Your task to perform on an android device: Open battery settings Image 0: 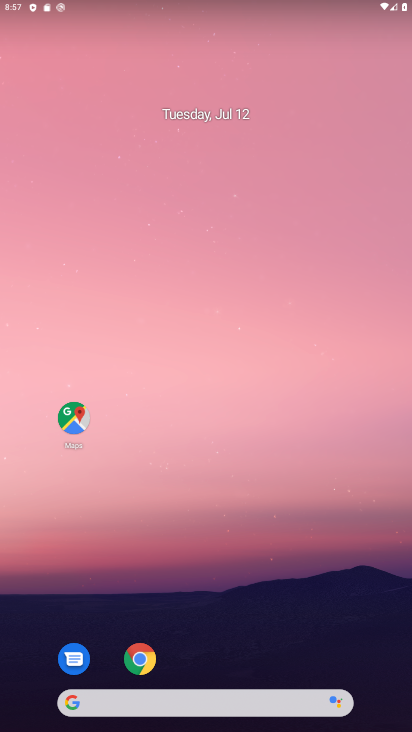
Step 0: drag from (196, 653) to (288, 153)
Your task to perform on an android device: Open battery settings Image 1: 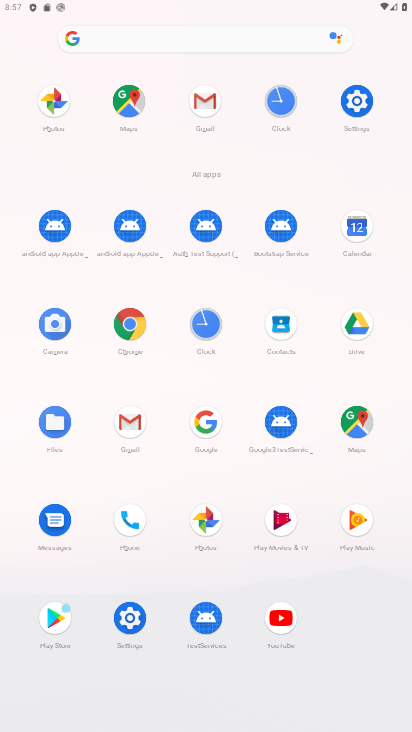
Step 1: click (138, 622)
Your task to perform on an android device: Open battery settings Image 2: 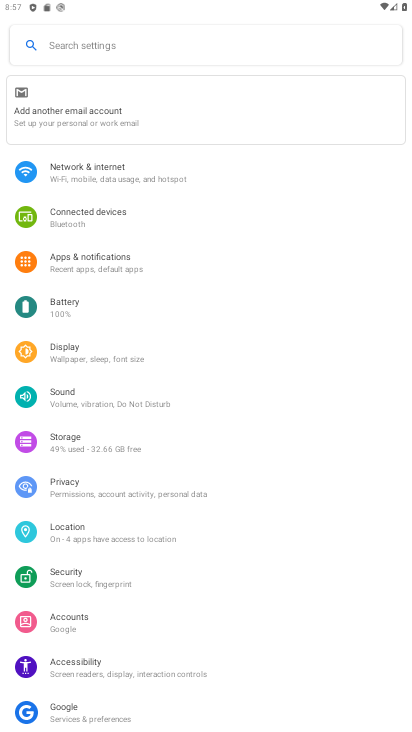
Step 2: click (94, 310)
Your task to perform on an android device: Open battery settings Image 3: 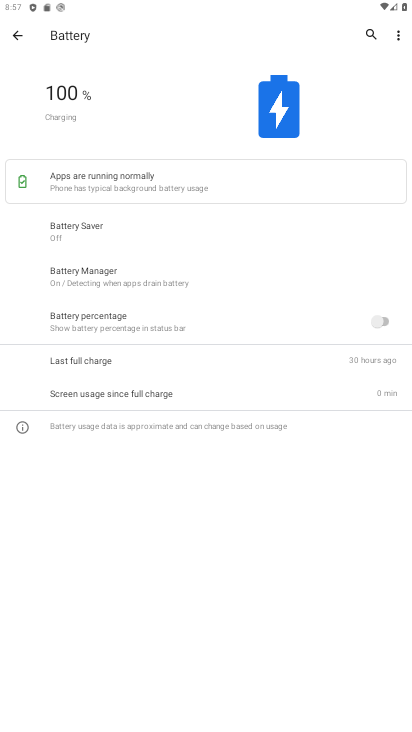
Step 3: task complete